Your task to perform on an android device: change your default location settings in chrome Image 0: 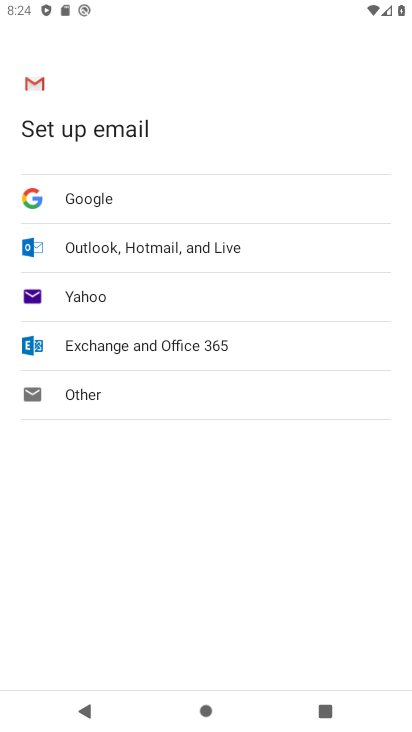
Step 0: press home button
Your task to perform on an android device: change your default location settings in chrome Image 1: 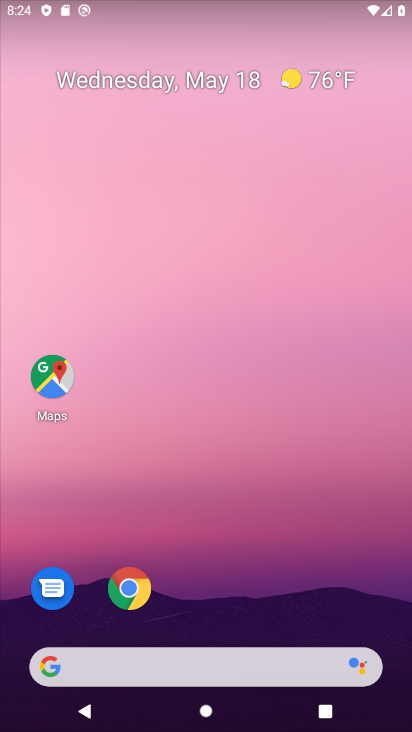
Step 1: click (143, 604)
Your task to perform on an android device: change your default location settings in chrome Image 2: 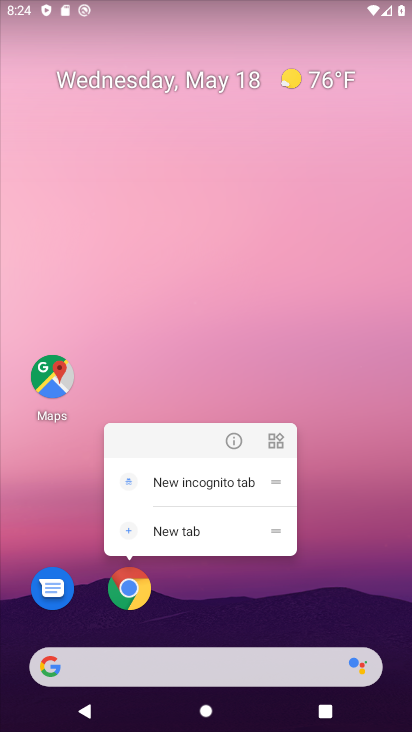
Step 2: click (115, 598)
Your task to perform on an android device: change your default location settings in chrome Image 3: 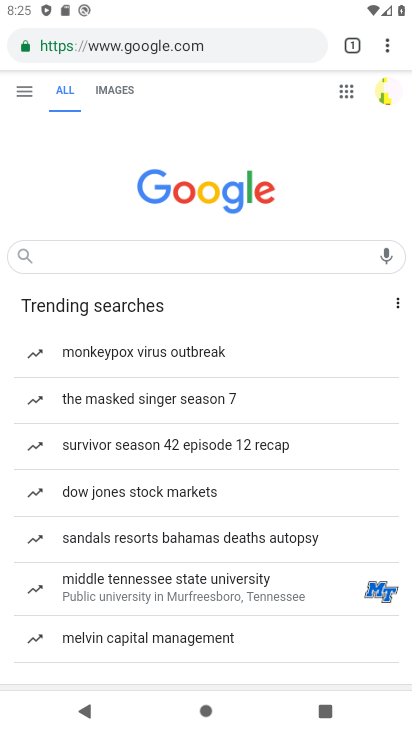
Step 3: click (387, 56)
Your task to perform on an android device: change your default location settings in chrome Image 4: 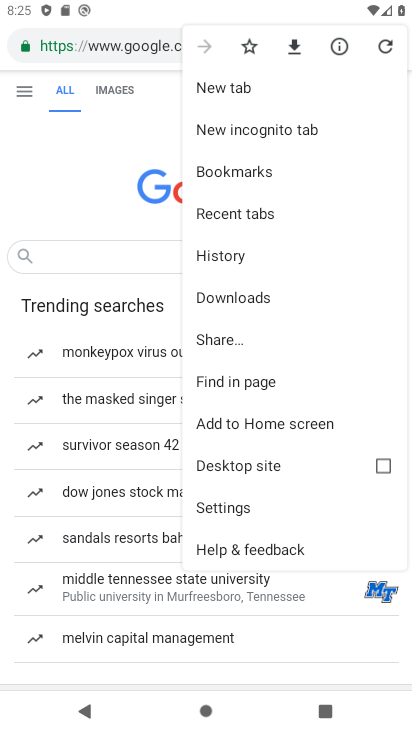
Step 4: click (247, 507)
Your task to perform on an android device: change your default location settings in chrome Image 5: 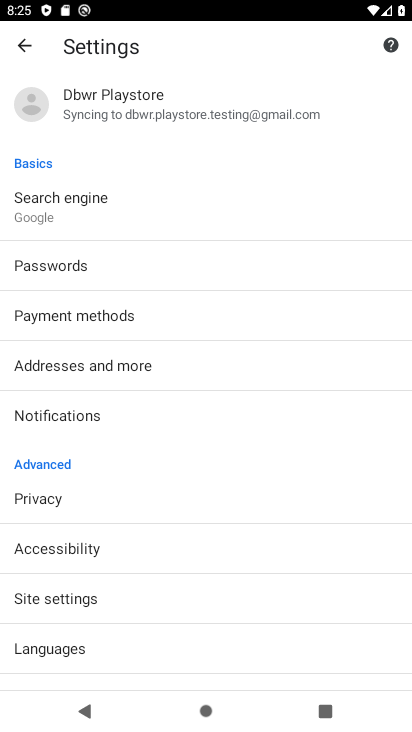
Step 5: click (118, 360)
Your task to perform on an android device: change your default location settings in chrome Image 6: 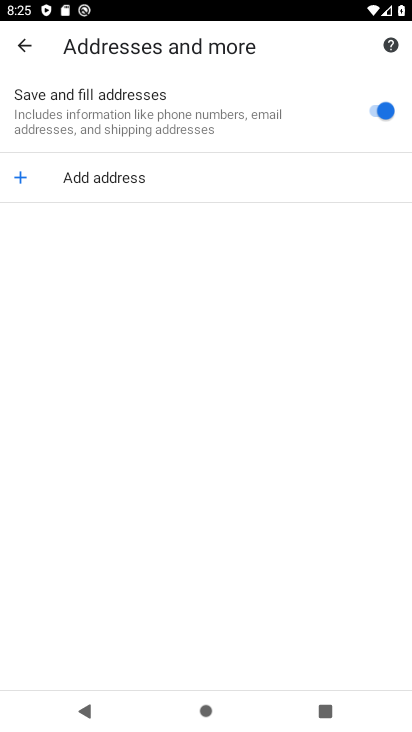
Step 6: task complete